Your task to perform on an android device: Open location settings Image 0: 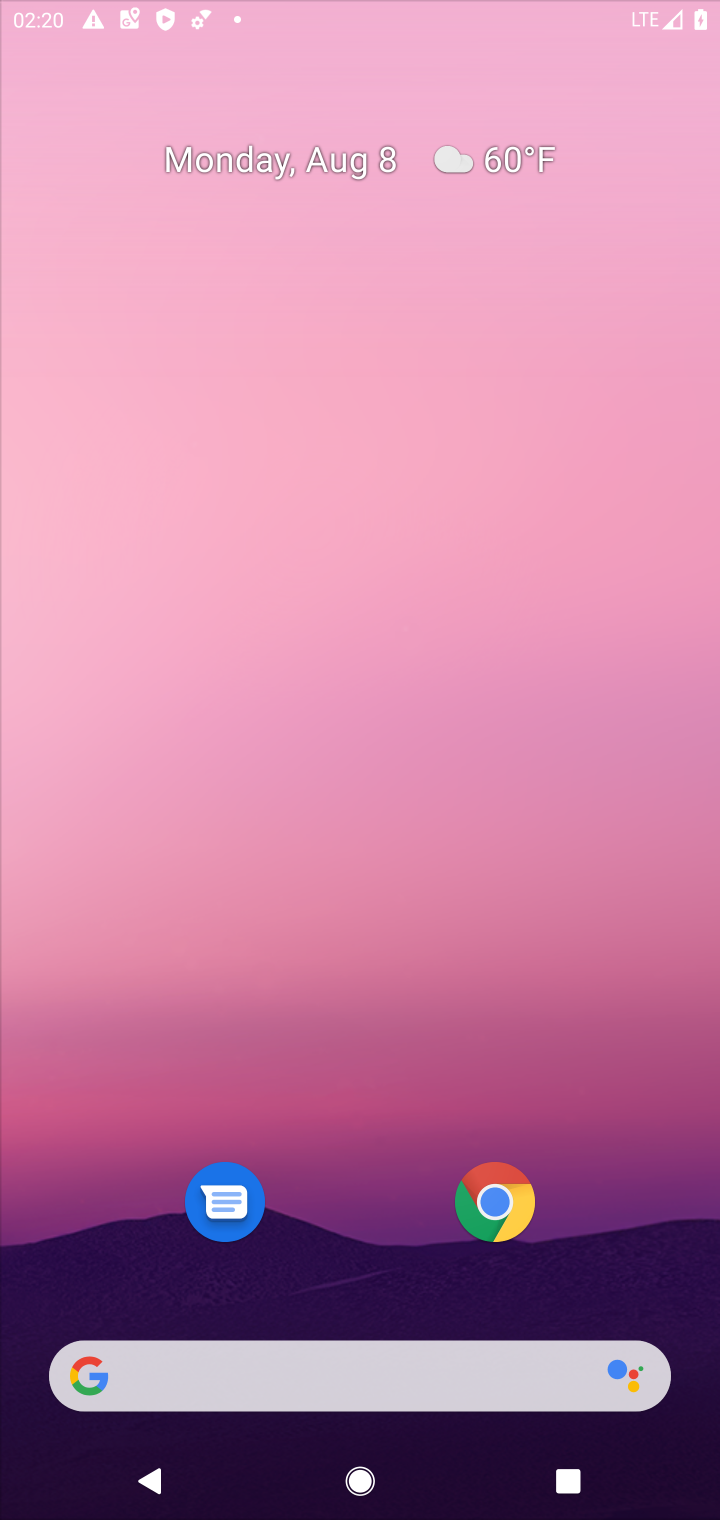
Step 0: press home button
Your task to perform on an android device: Open location settings Image 1: 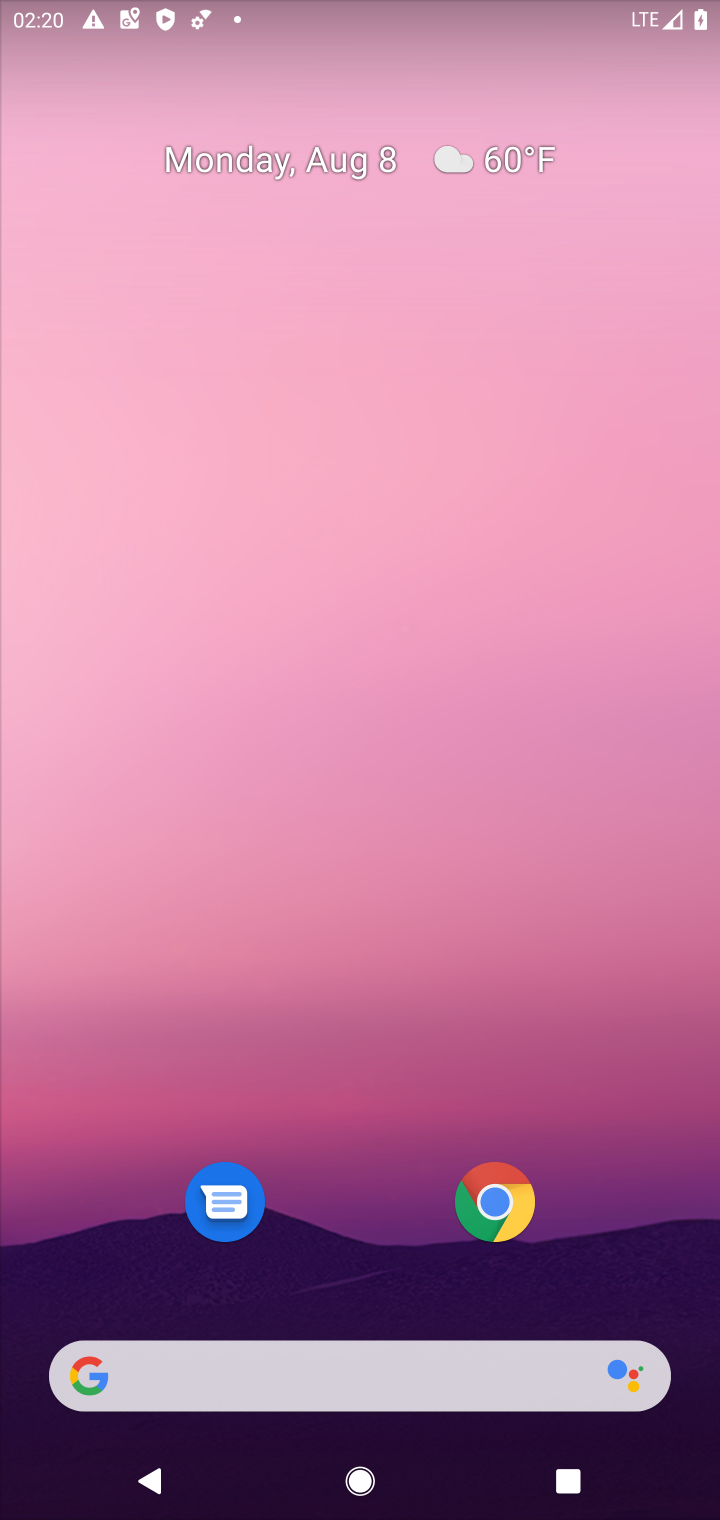
Step 1: drag from (372, 1285) to (450, 222)
Your task to perform on an android device: Open location settings Image 2: 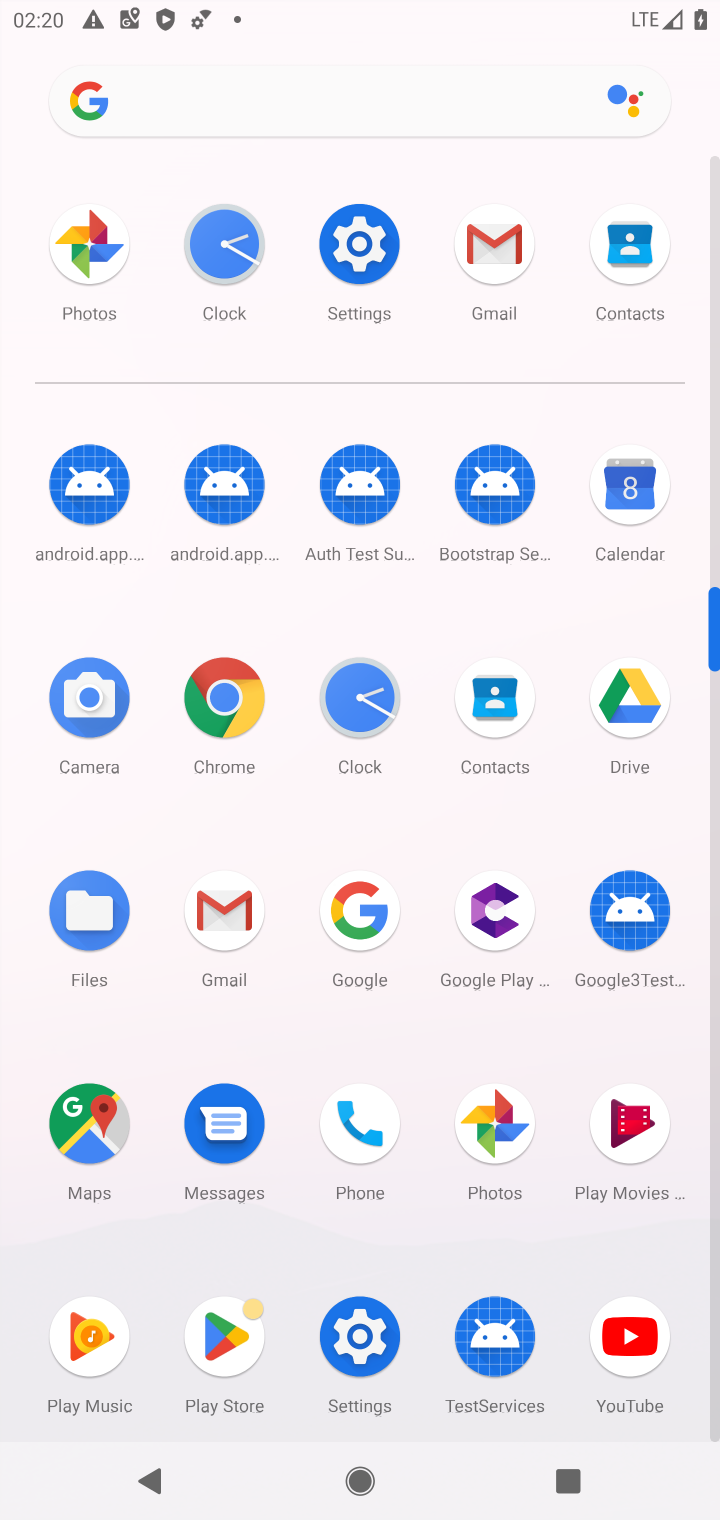
Step 2: click (359, 1342)
Your task to perform on an android device: Open location settings Image 3: 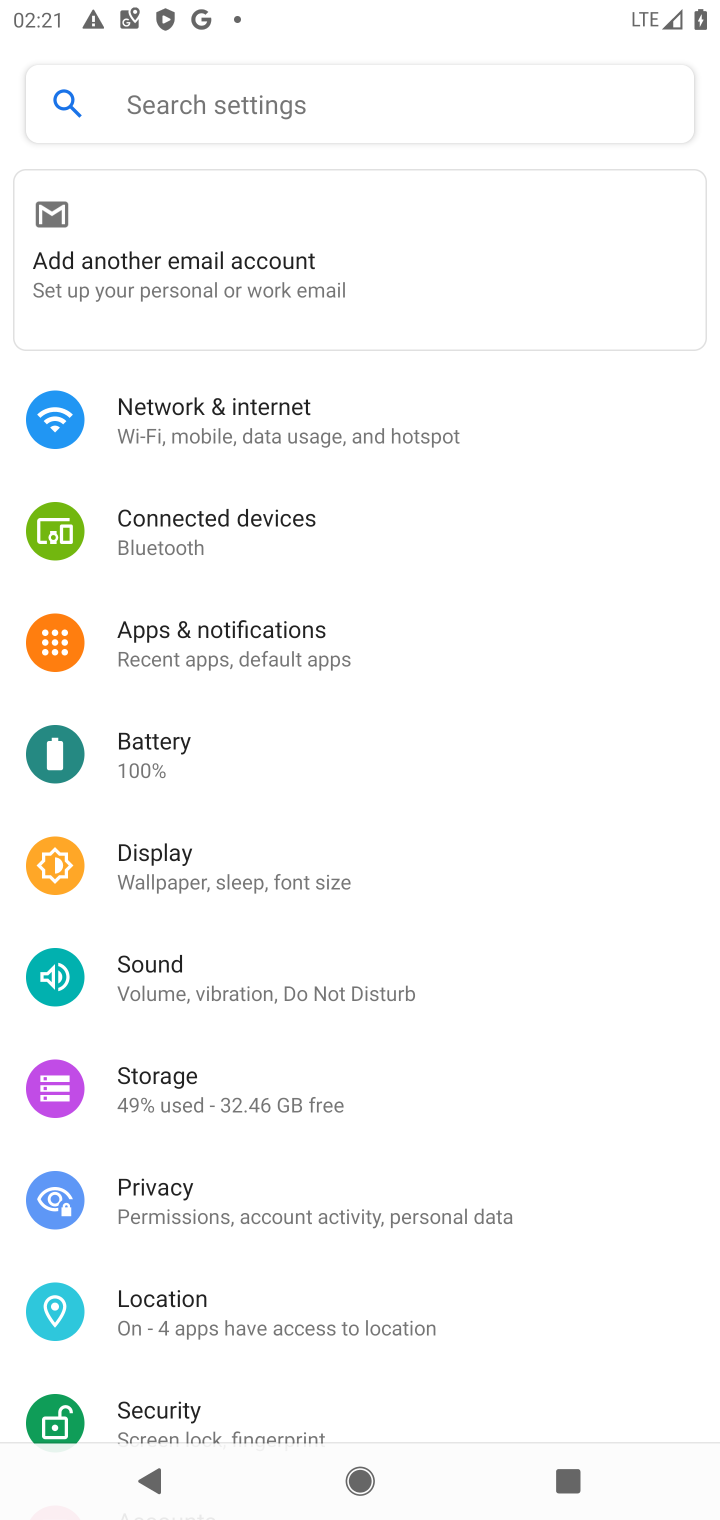
Step 3: click (209, 1315)
Your task to perform on an android device: Open location settings Image 4: 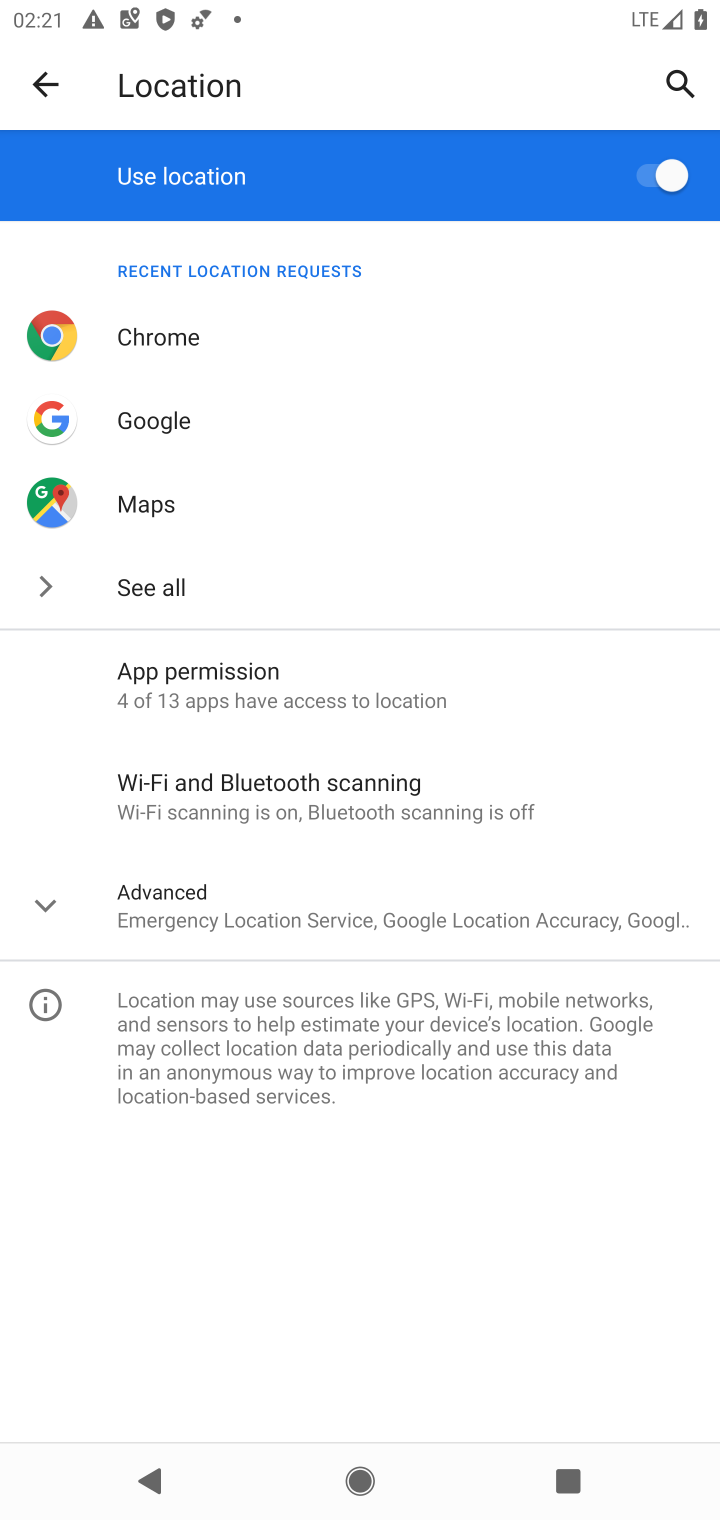
Step 4: task complete